Your task to perform on an android device: Open location settings Image 0: 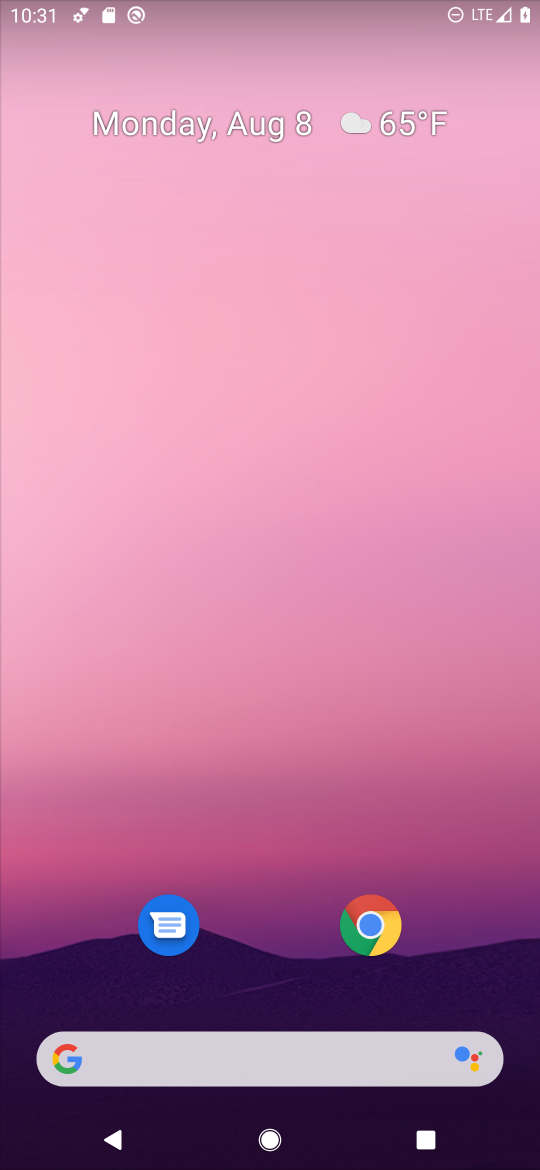
Step 0: drag from (269, 934) to (265, 49)
Your task to perform on an android device: Open location settings Image 1: 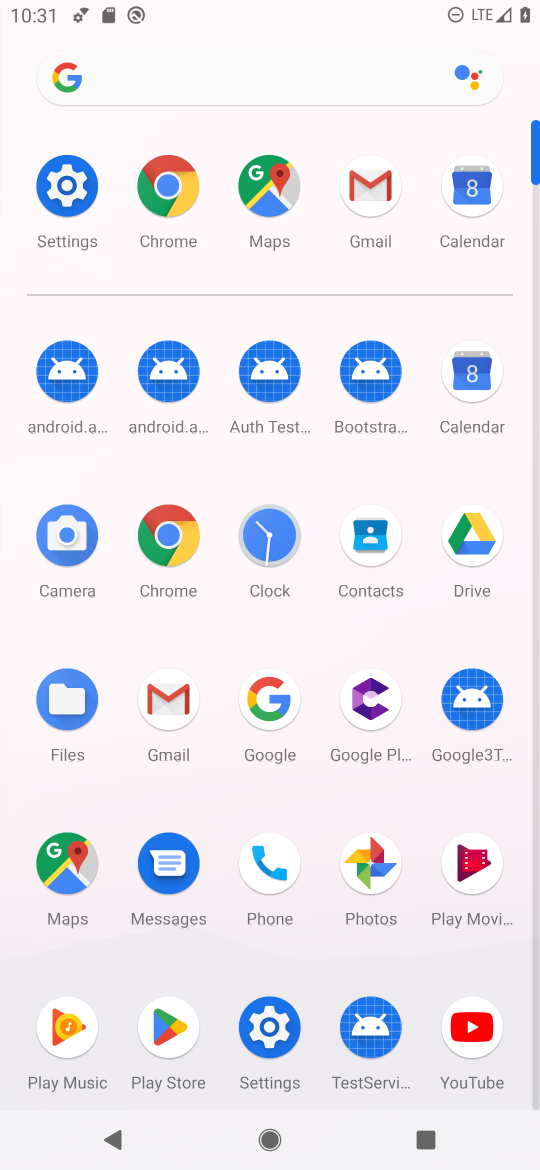
Step 1: click (272, 1017)
Your task to perform on an android device: Open location settings Image 2: 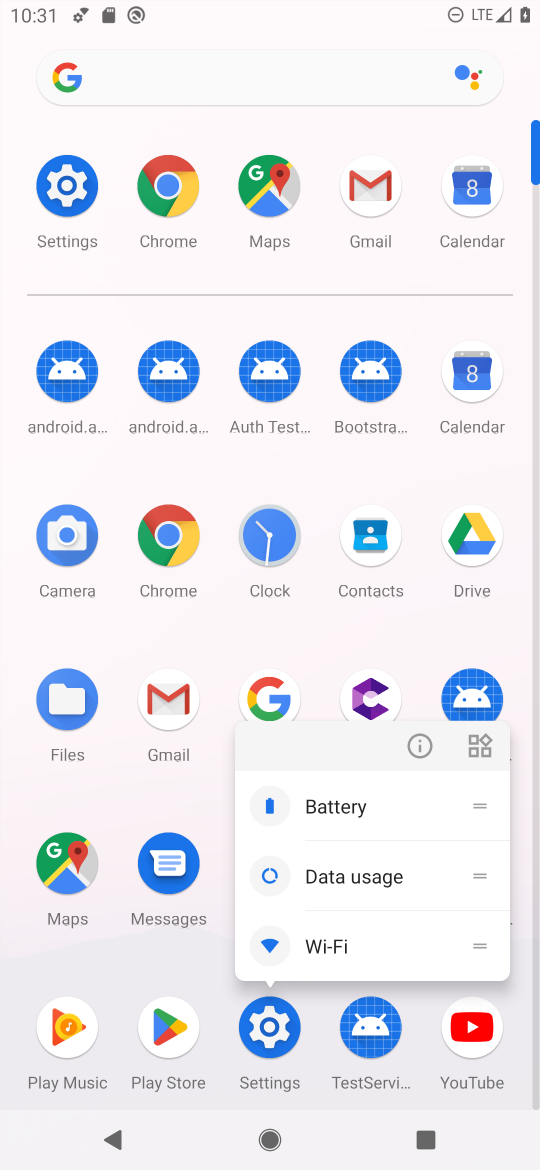
Step 2: click (271, 1013)
Your task to perform on an android device: Open location settings Image 3: 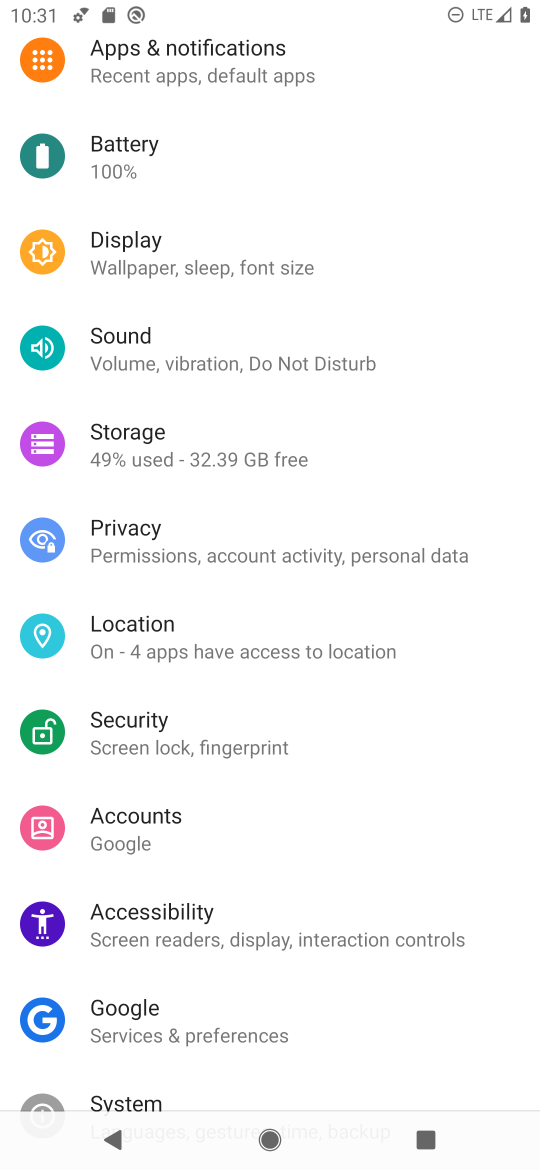
Step 3: click (180, 636)
Your task to perform on an android device: Open location settings Image 4: 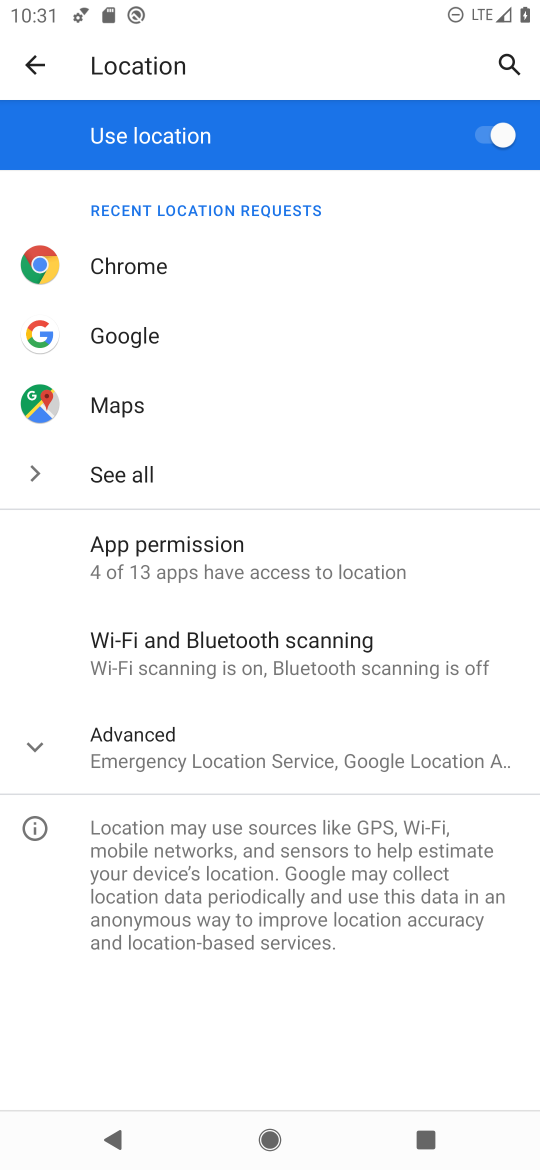
Step 4: task complete